Your task to perform on an android device: change the upload size in google photos Image 0: 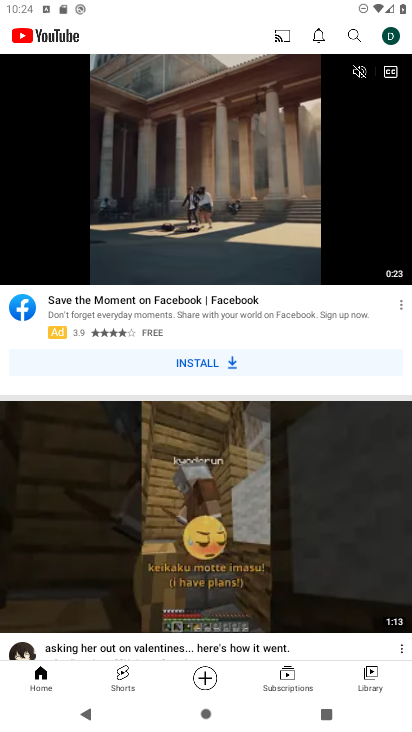
Step 0: press home button
Your task to perform on an android device: change the upload size in google photos Image 1: 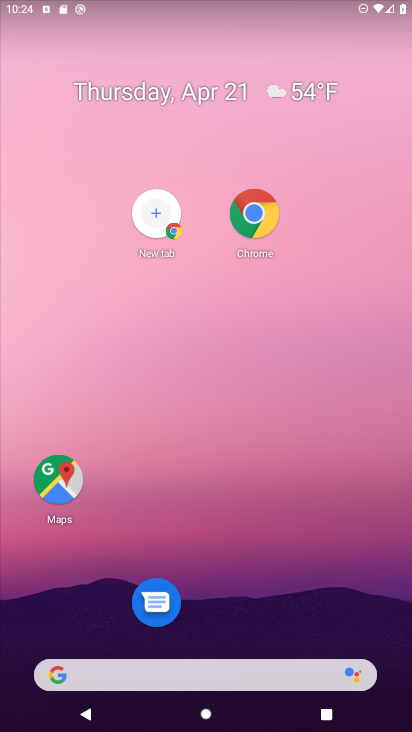
Step 1: drag from (265, 612) to (230, 146)
Your task to perform on an android device: change the upload size in google photos Image 2: 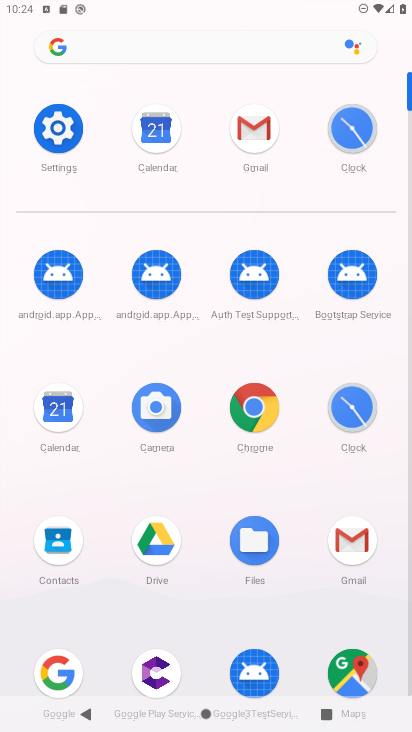
Step 2: drag from (98, 617) to (112, 234)
Your task to perform on an android device: change the upload size in google photos Image 3: 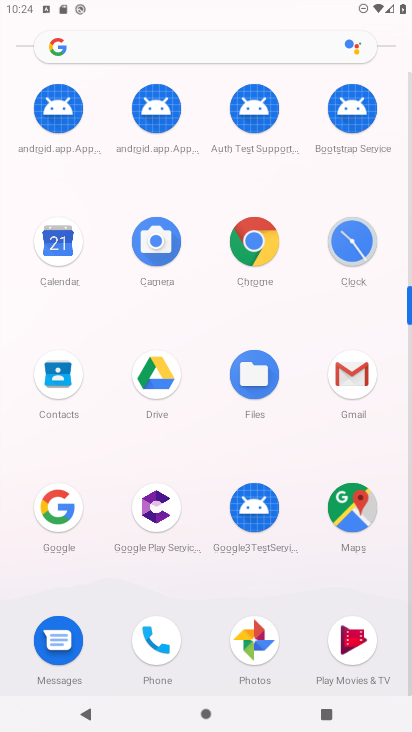
Step 3: click (233, 649)
Your task to perform on an android device: change the upload size in google photos Image 4: 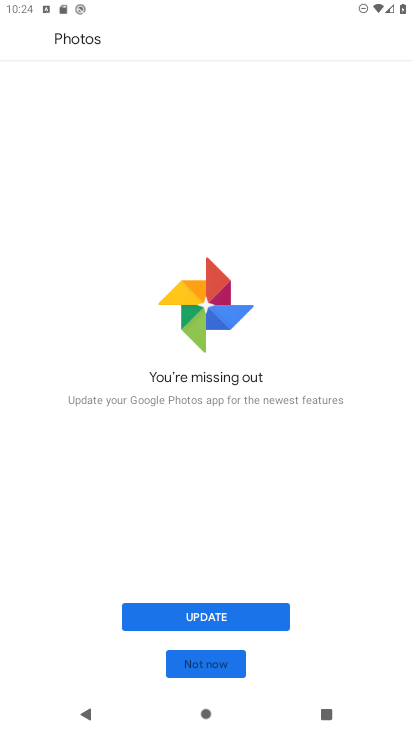
Step 4: click (214, 667)
Your task to perform on an android device: change the upload size in google photos Image 5: 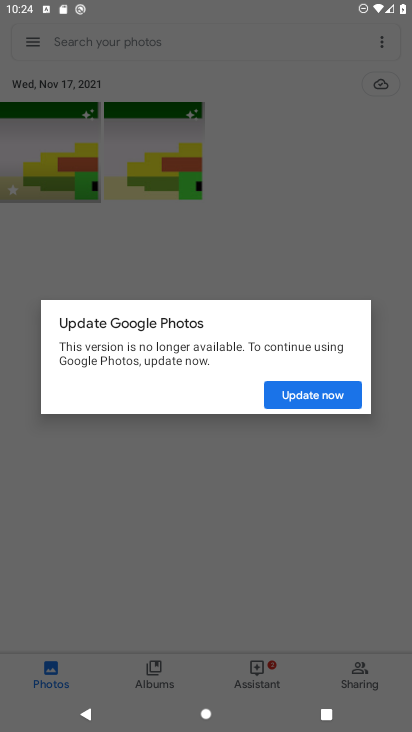
Step 5: click (311, 398)
Your task to perform on an android device: change the upload size in google photos Image 6: 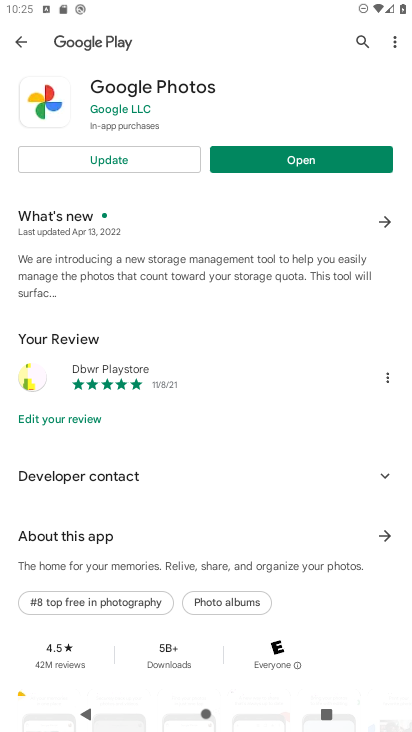
Step 6: click (241, 156)
Your task to perform on an android device: change the upload size in google photos Image 7: 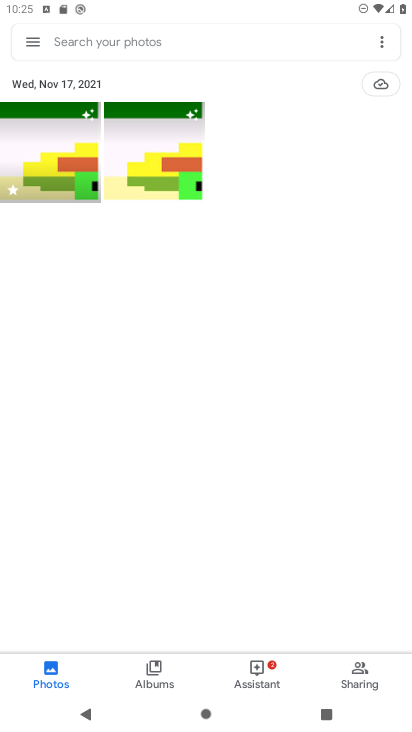
Step 7: click (46, 41)
Your task to perform on an android device: change the upload size in google photos Image 8: 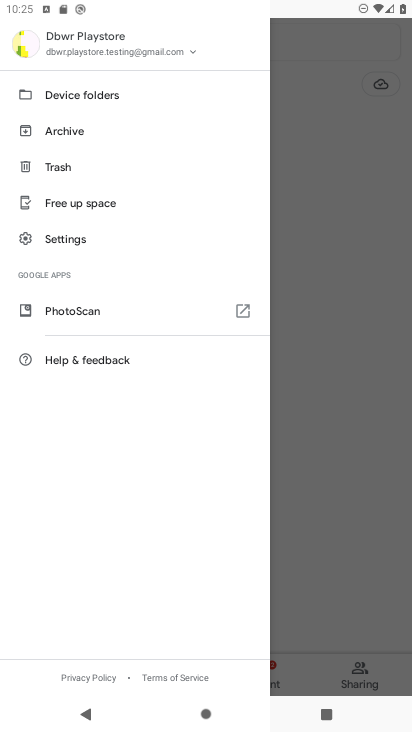
Step 8: click (79, 222)
Your task to perform on an android device: change the upload size in google photos Image 9: 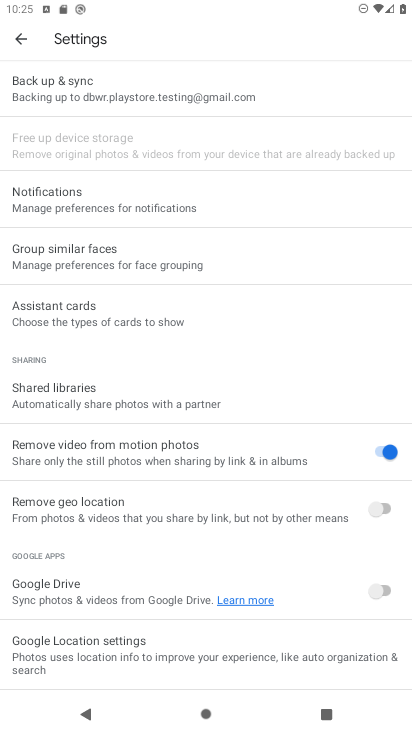
Step 9: click (83, 88)
Your task to perform on an android device: change the upload size in google photos Image 10: 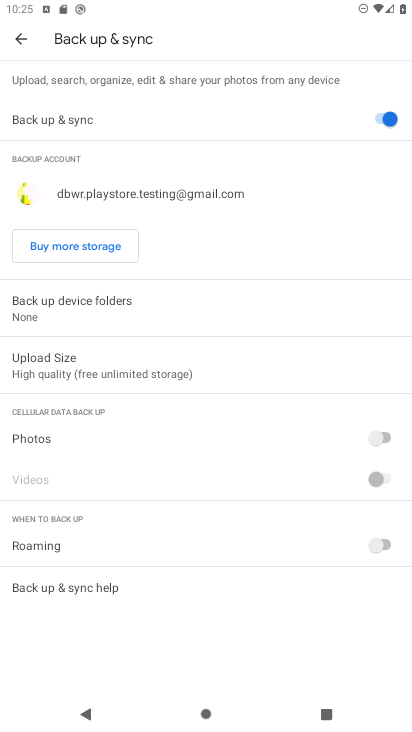
Step 10: click (255, 377)
Your task to perform on an android device: change the upload size in google photos Image 11: 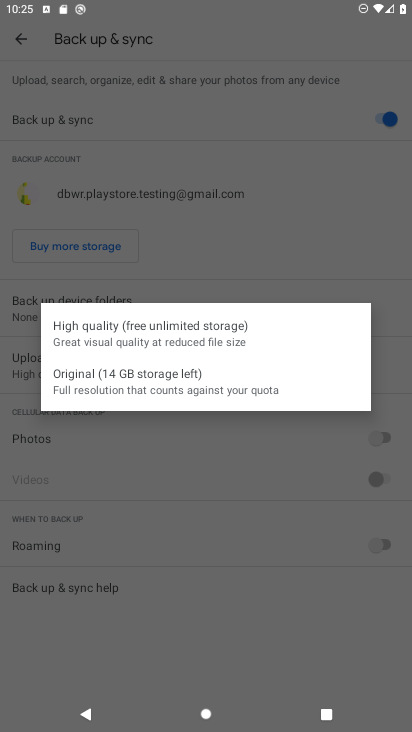
Step 11: click (255, 377)
Your task to perform on an android device: change the upload size in google photos Image 12: 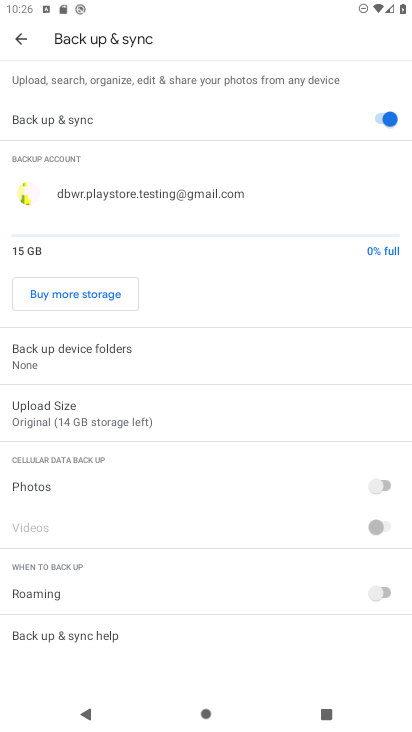
Step 12: task complete